Your task to perform on an android device: Set the phone to "Do not disturb". Image 0: 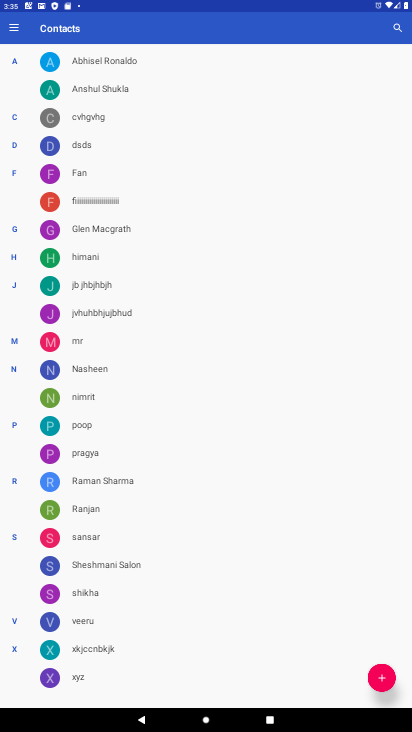
Step 0: press home button
Your task to perform on an android device: Set the phone to "Do not disturb". Image 1: 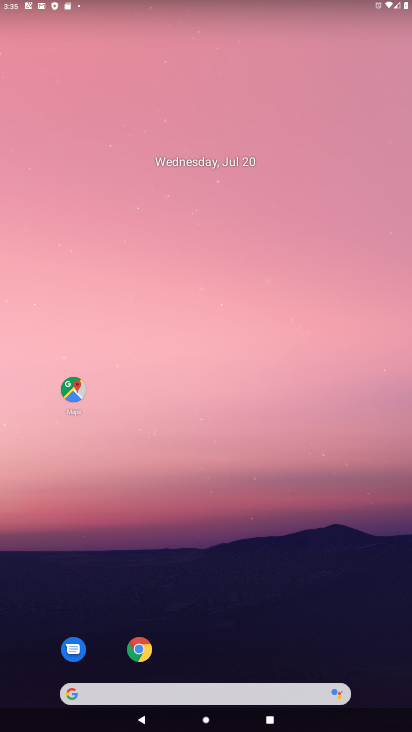
Step 1: drag from (202, 690) to (323, 84)
Your task to perform on an android device: Set the phone to "Do not disturb". Image 2: 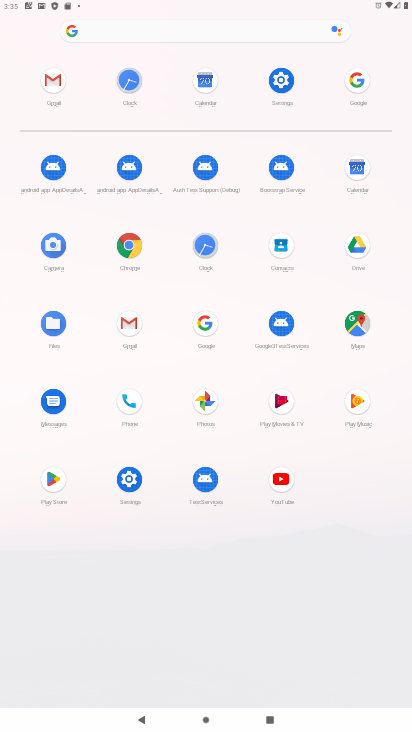
Step 2: click (282, 80)
Your task to perform on an android device: Set the phone to "Do not disturb". Image 3: 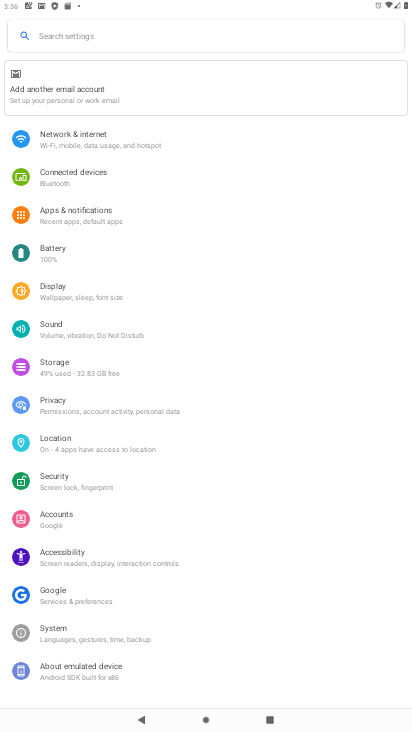
Step 3: click (101, 336)
Your task to perform on an android device: Set the phone to "Do not disturb". Image 4: 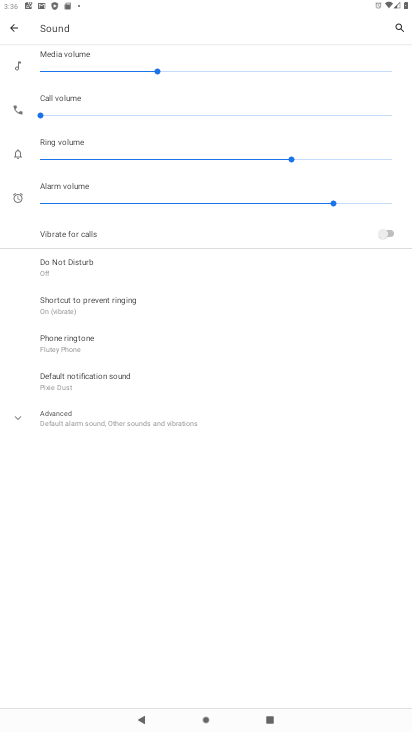
Step 4: click (81, 261)
Your task to perform on an android device: Set the phone to "Do not disturb". Image 5: 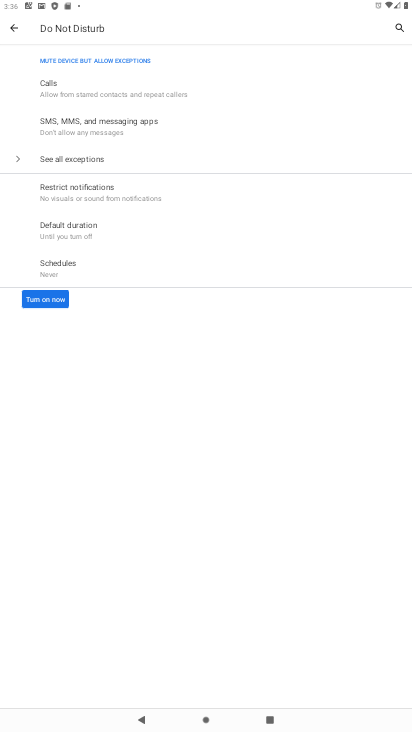
Step 5: click (49, 300)
Your task to perform on an android device: Set the phone to "Do not disturb". Image 6: 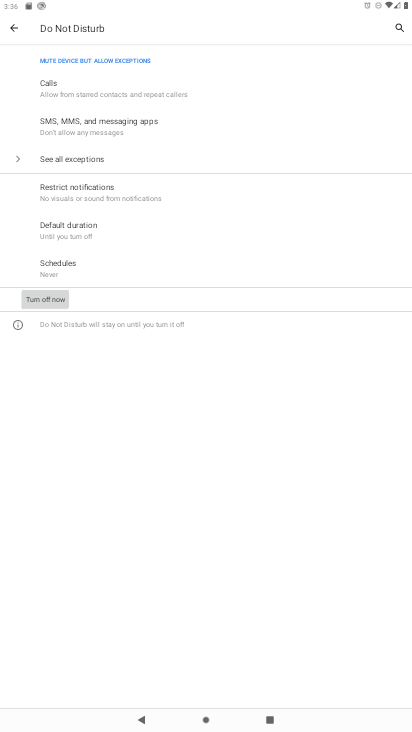
Step 6: task complete